Your task to perform on an android device: When is my next meeting? Image 0: 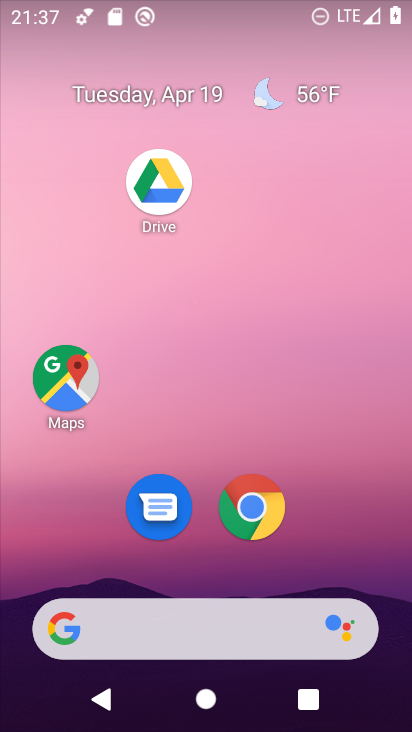
Step 0: drag from (344, 528) to (329, 122)
Your task to perform on an android device: When is my next meeting? Image 1: 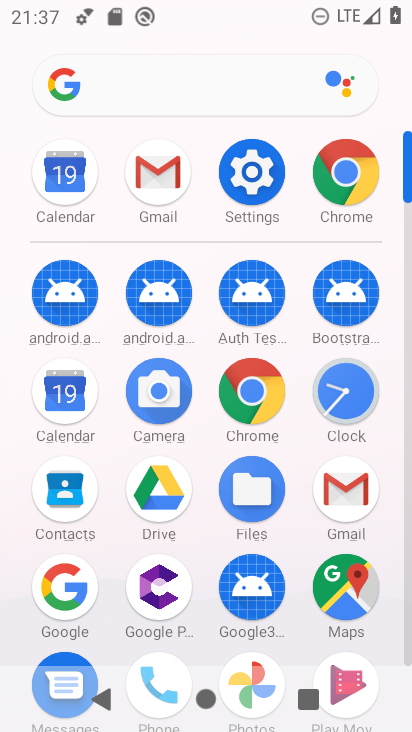
Step 1: click (77, 394)
Your task to perform on an android device: When is my next meeting? Image 2: 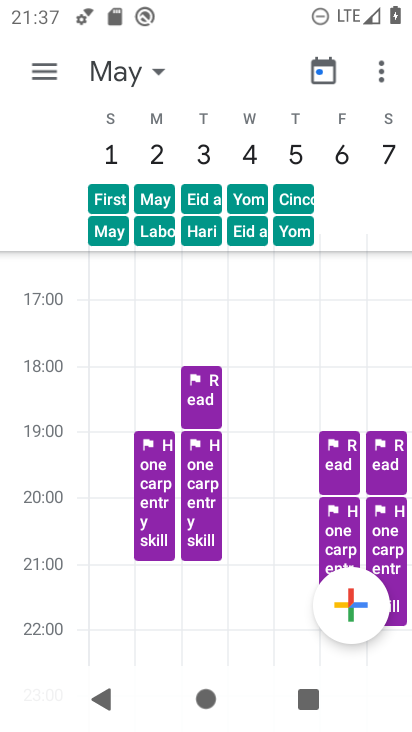
Step 2: task complete